Your task to perform on an android device: remove spam from my inbox in the gmail app Image 0: 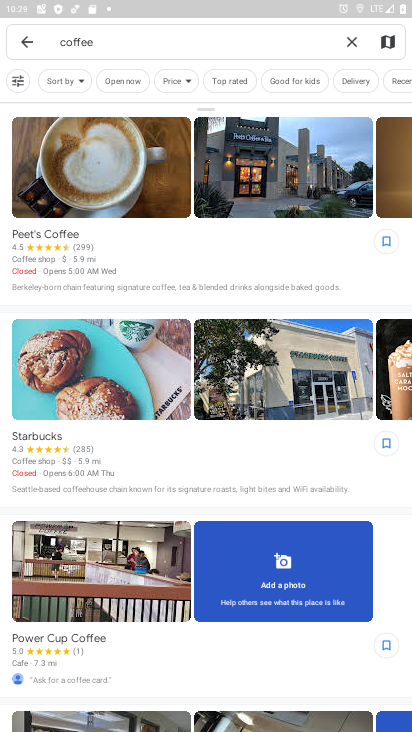
Step 0: click (16, 50)
Your task to perform on an android device: remove spam from my inbox in the gmail app Image 1: 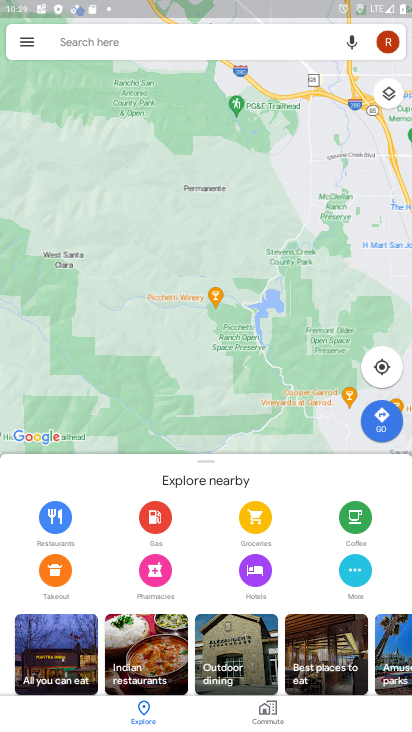
Step 1: drag from (254, 439) to (292, 189)
Your task to perform on an android device: remove spam from my inbox in the gmail app Image 2: 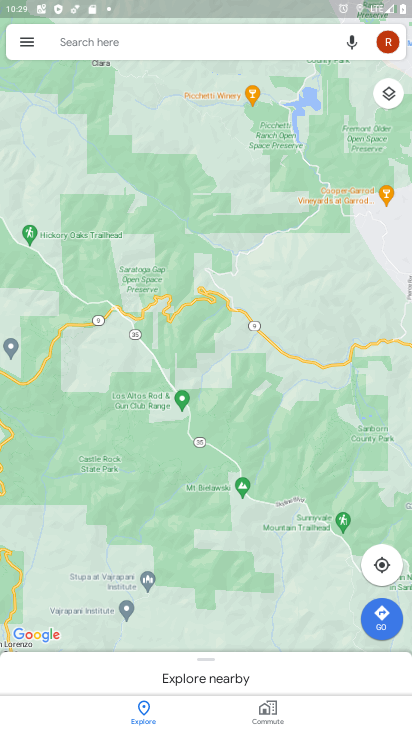
Step 2: drag from (253, 493) to (291, 201)
Your task to perform on an android device: remove spam from my inbox in the gmail app Image 3: 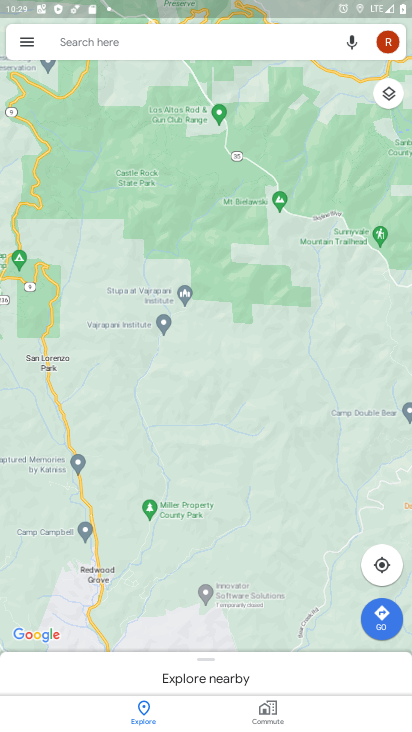
Step 3: press home button
Your task to perform on an android device: remove spam from my inbox in the gmail app Image 4: 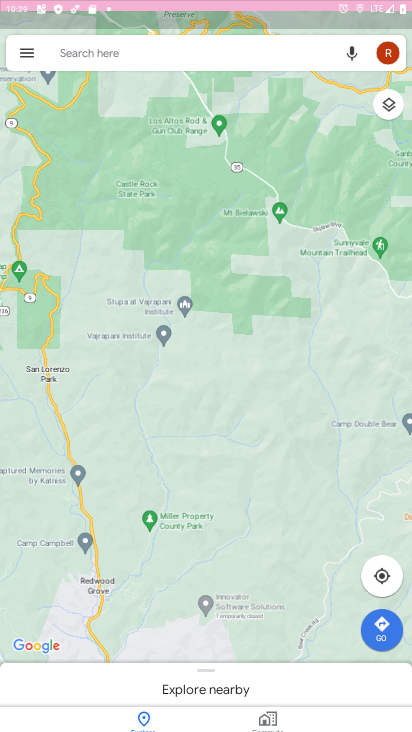
Step 4: drag from (174, 552) to (237, 101)
Your task to perform on an android device: remove spam from my inbox in the gmail app Image 5: 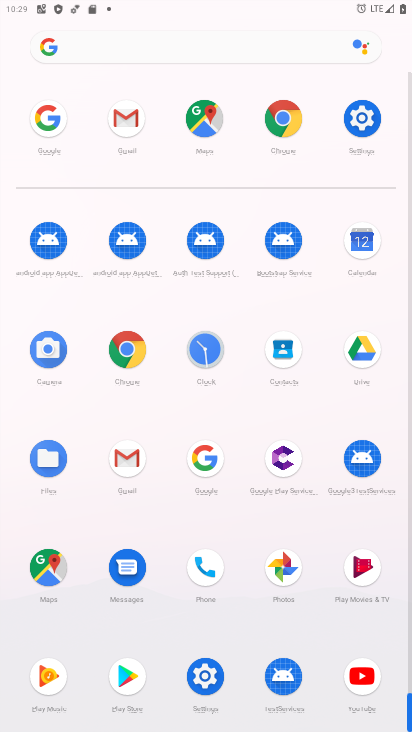
Step 5: click (125, 126)
Your task to perform on an android device: remove spam from my inbox in the gmail app Image 6: 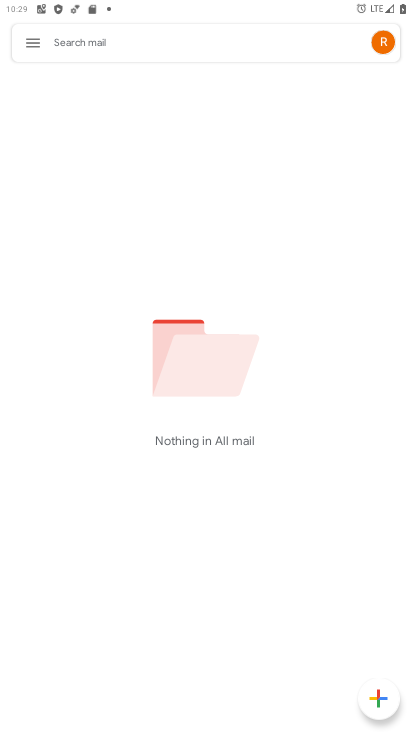
Step 6: click (26, 37)
Your task to perform on an android device: remove spam from my inbox in the gmail app Image 7: 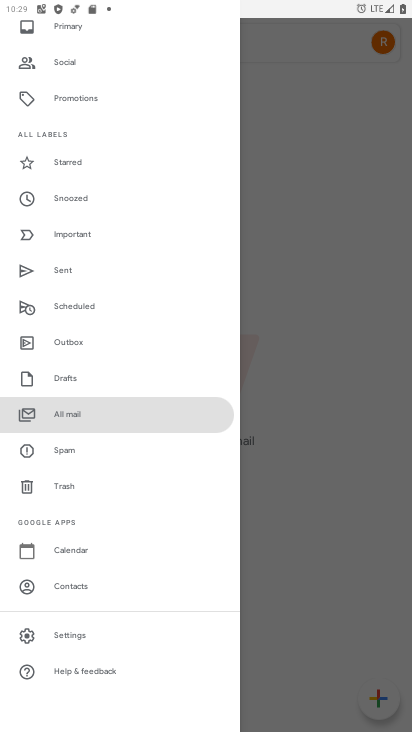
Step 7: click (74, 450)
Your task to perform on an android device: remove spam from my inbox in the gmail app Image 8: 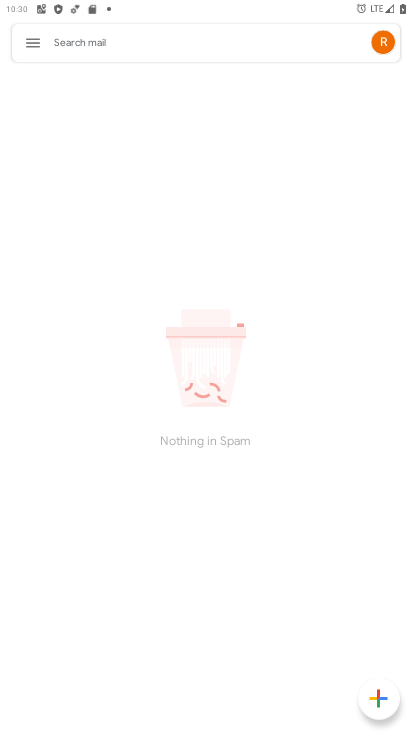
Step 8: task complete